Your task to perform on an android device: Add "acer predator" to the cart on costco.com Image 0: 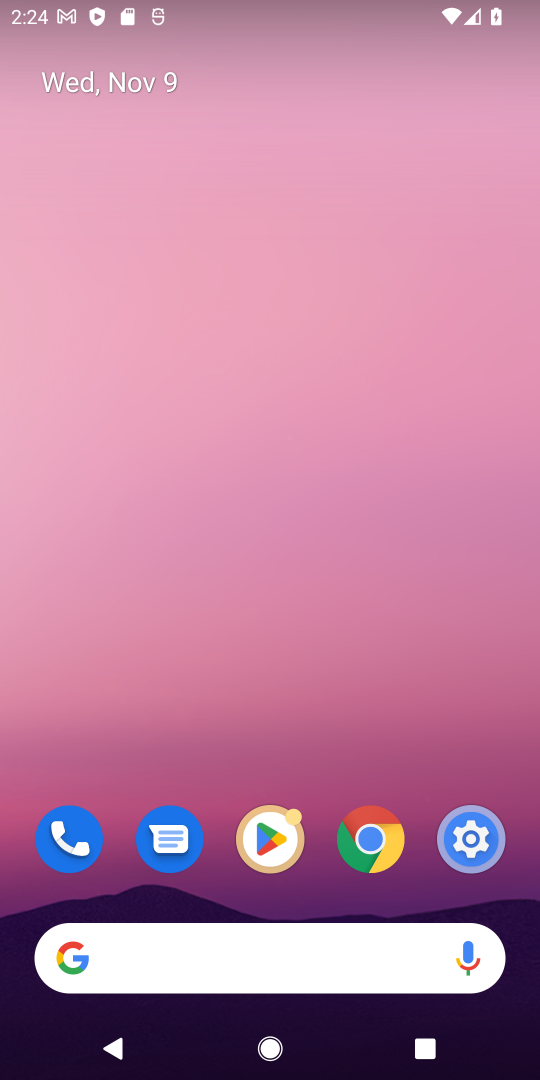
Step 0: press home button
Your task to perform on an android device: Add "acer predator" to the cart on costco.com Image 1: 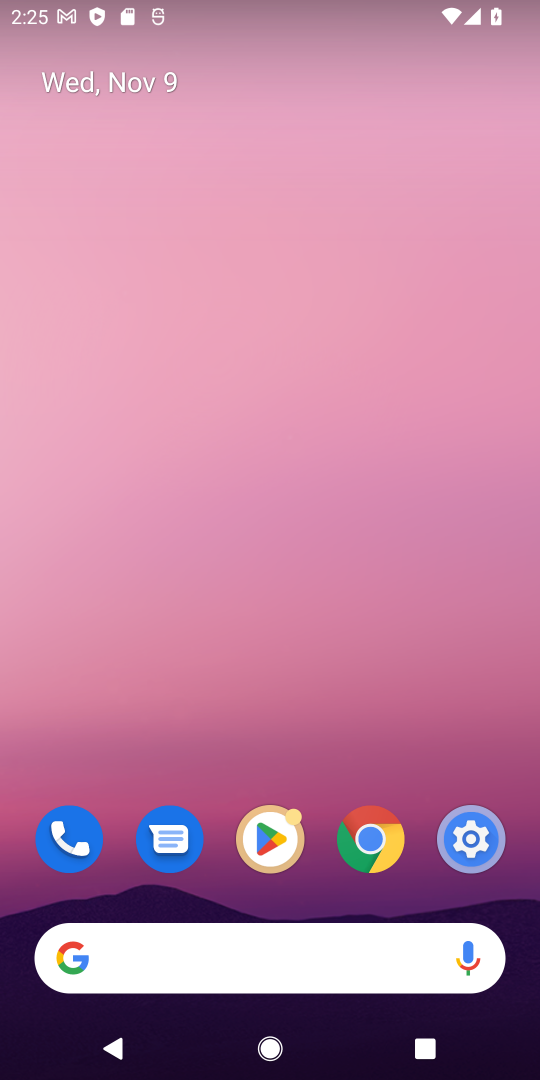
Step 1: click (265, 974)
Your task to perform on an android device: Add "acer predator" to the cart on costco.com Image 2: 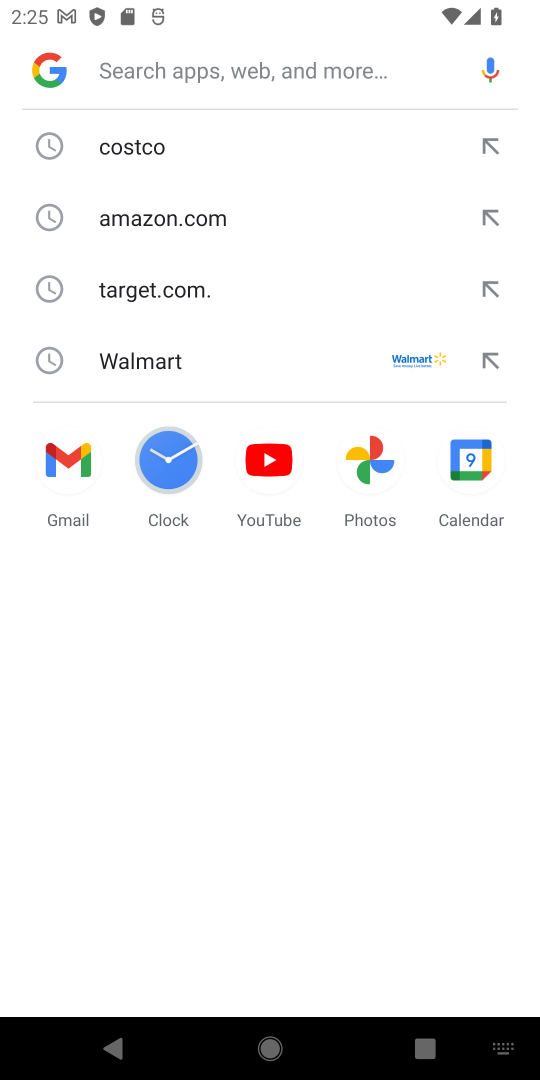
Step 2: click (133, 131)
Your task to perform on an android device: Add "acer predator" to the cart on costco.com Image 3: 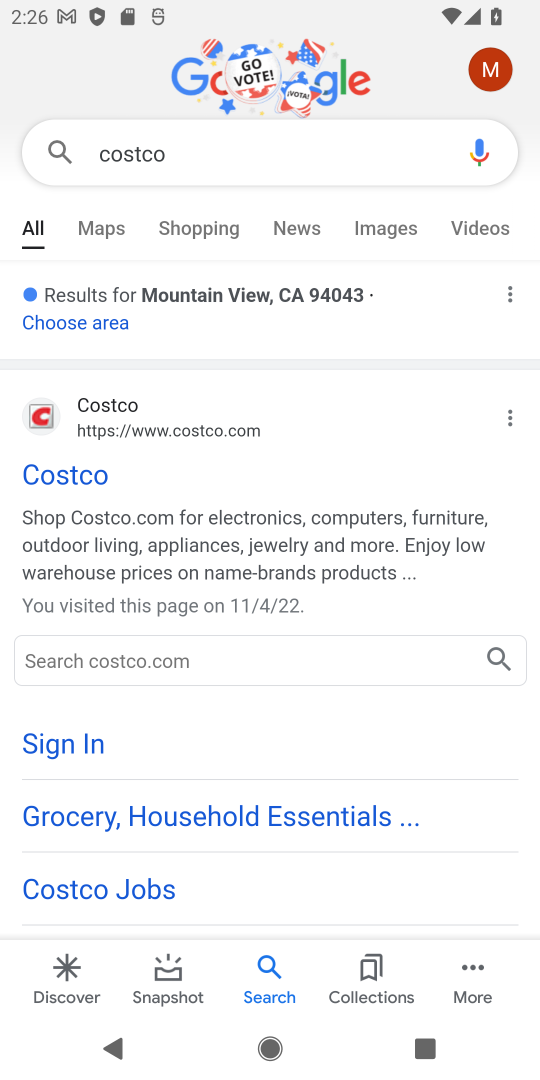
Step 3: click (58, 459)
Your task to perform on an android device: Add "acer predator" to the cart on costco.com Image 4: 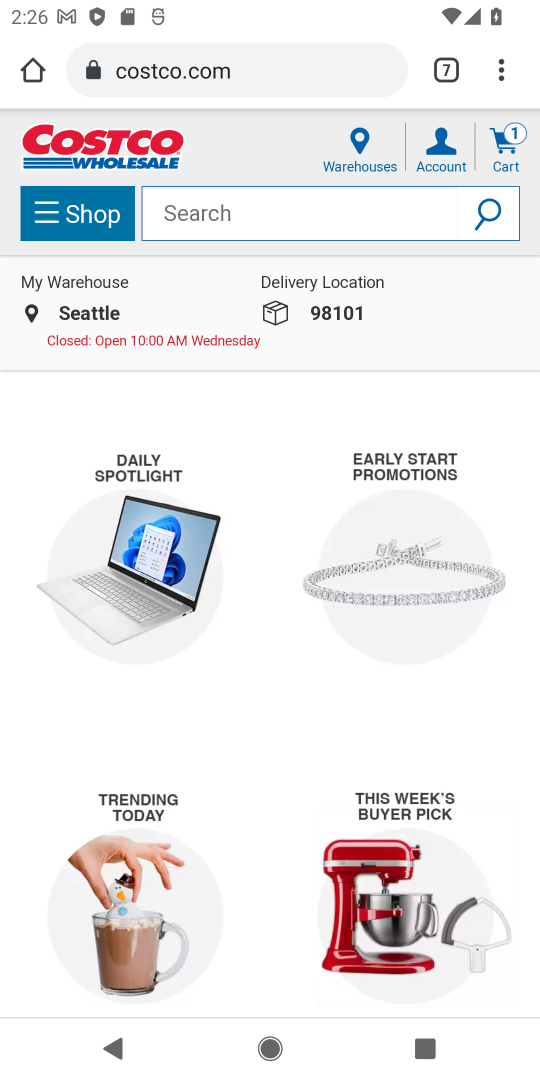
Step 4: click (247, 190)
Your task to perform on an android device: Add "acer predator" to the cart on costco.com Image 5: 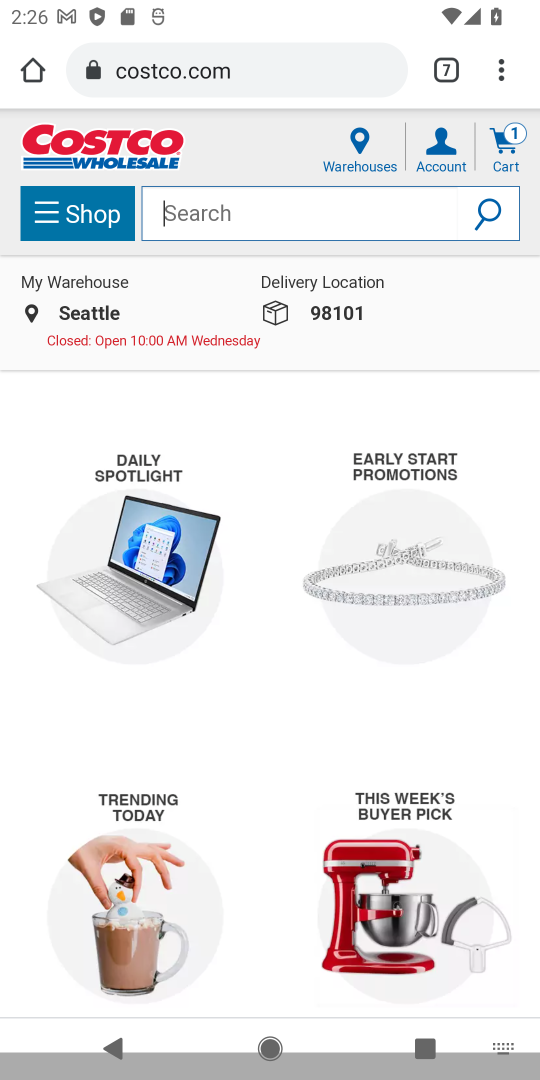
Step 5: click (233, 210)
Your task to perform on an android device: Add "acer predator" to the cart on costco.com Image 6: 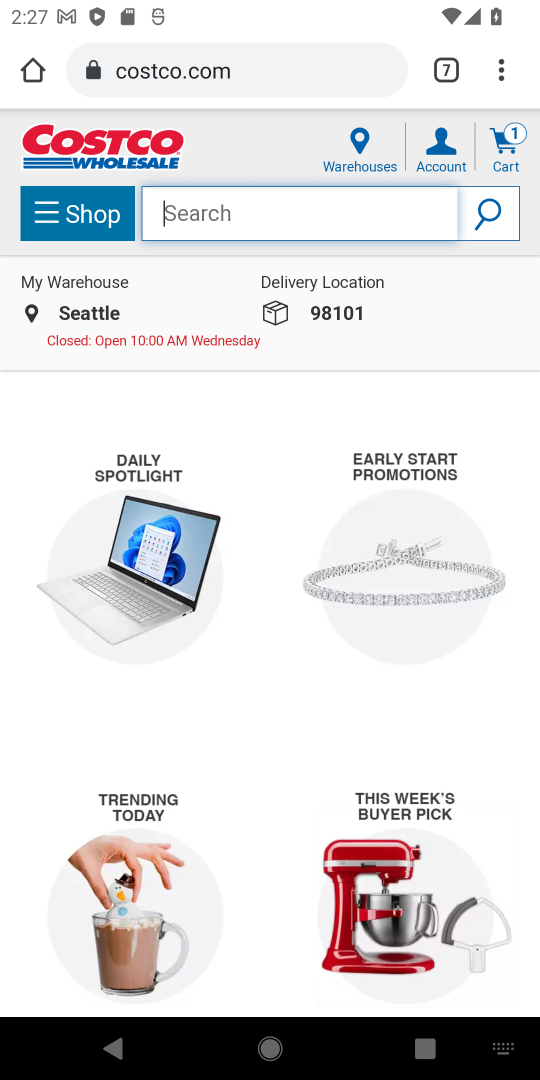
Step 6: type "acer predator"
Your task to perform on an android device: Add "acer predator" to the cart on costco.com Image 7: 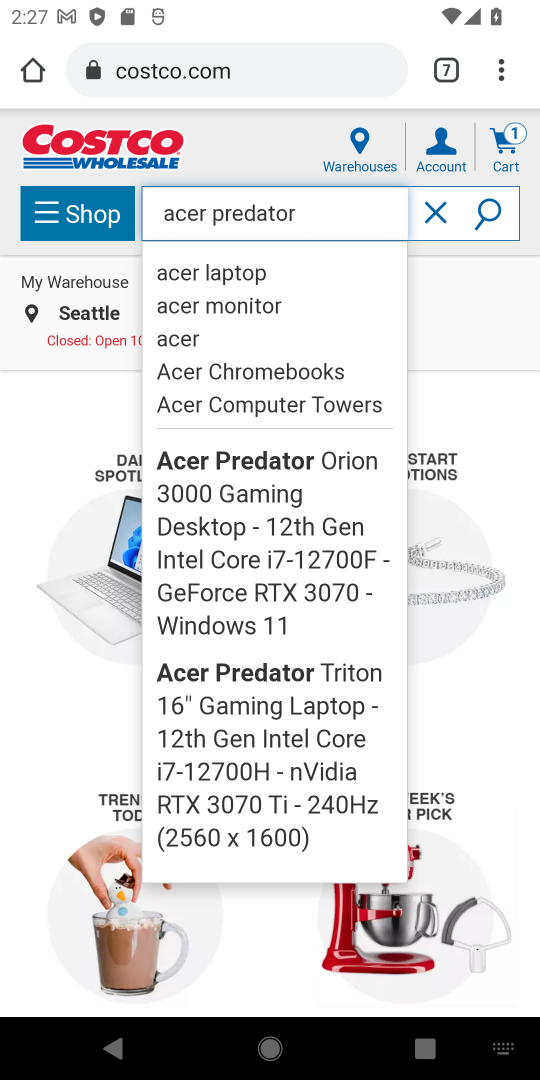
Step 7: click (483, 218)
Your task to perform on an android device: Add "acer predator" to the cart on costco.com Image 8: 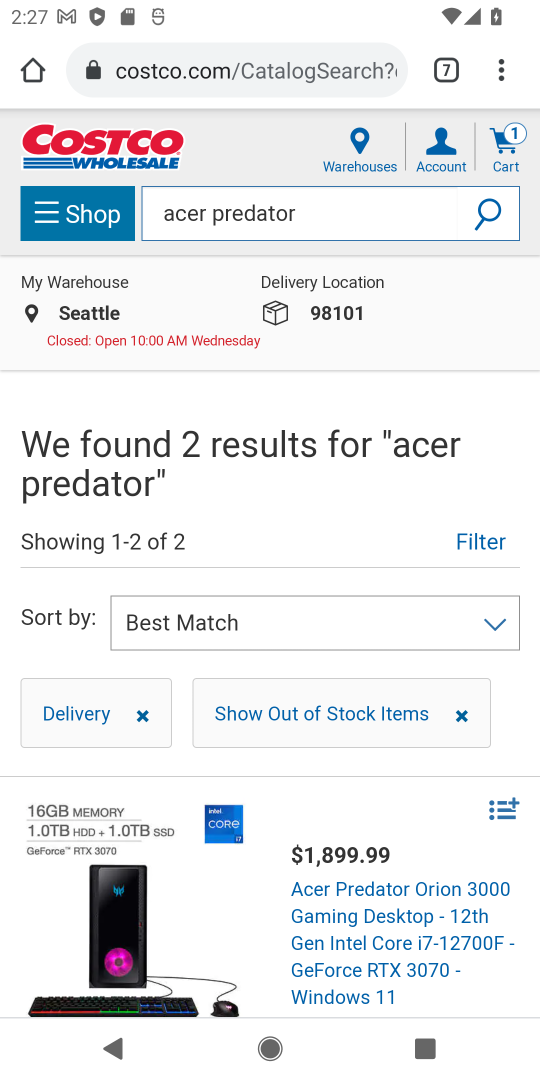
Step 8: task complete